Your task to perform on an android device: Go to Android settings Image 0: 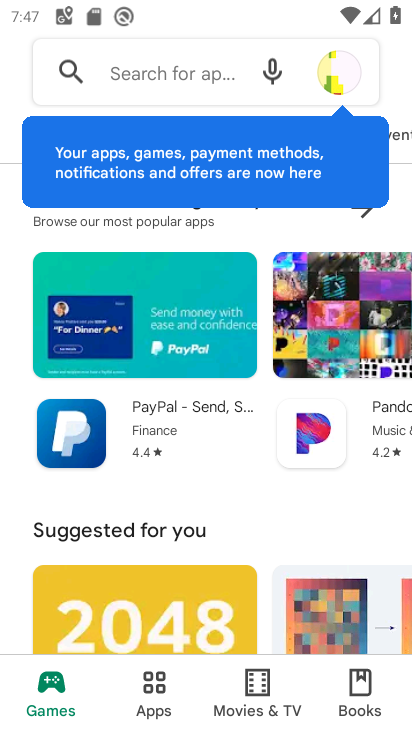
Step 0: press home button
Your task to perform on an android device: Go to Android settings Image 1: 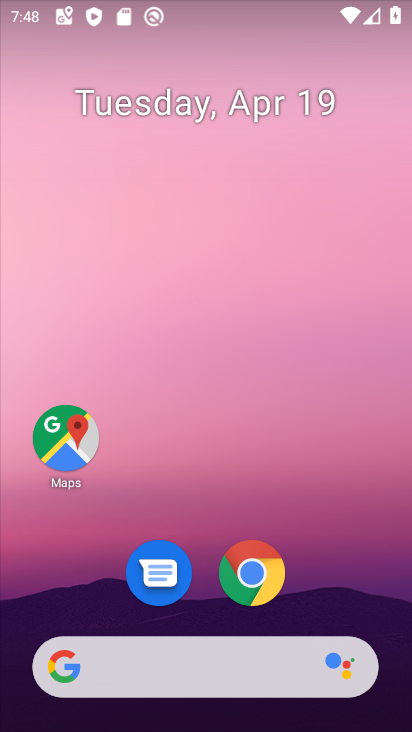
Step 1: drag from (137, 709) to (173, 147)
Your task to perform on an android device: Go to Android settings Image 2: 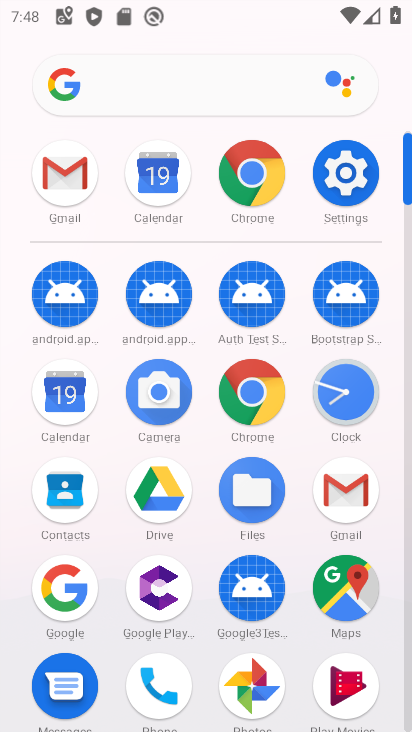
Step 2: click (331, 171)
Your task to perform on an android device: Go to Android settings Image 3: 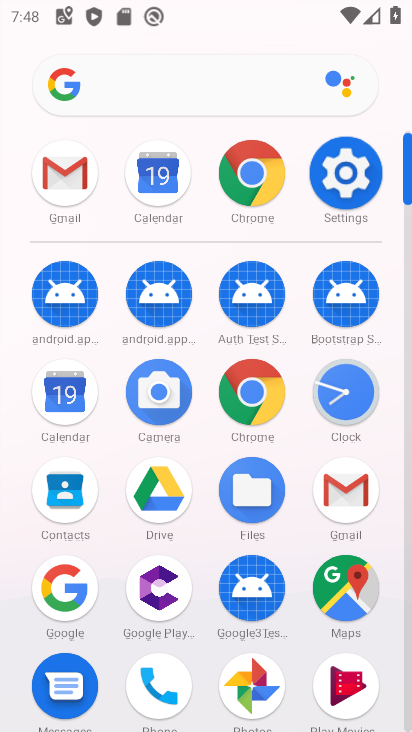
Step 3: click (336, 169)
Your task to perform on an android device: Go to Android settings Image 4: 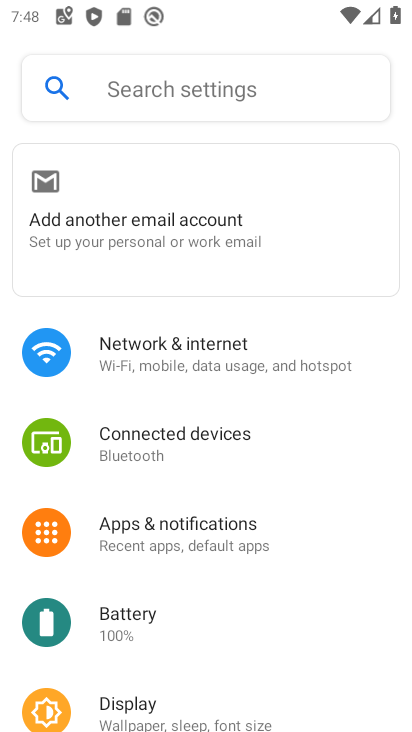
Step 4: click (195, 98)
Your task to perform on an android device: Go to Android settings Image 5: 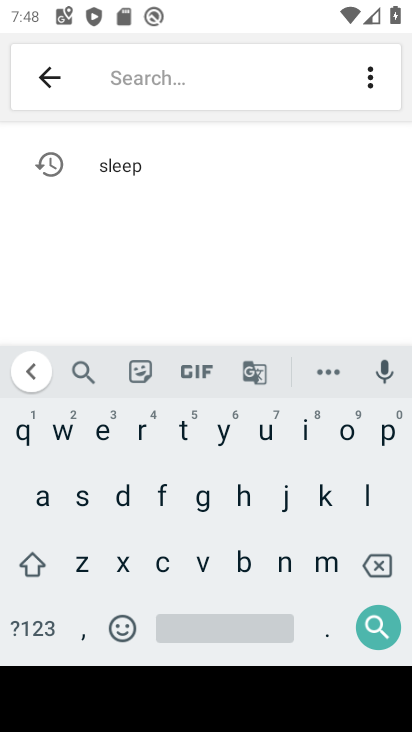
Step 5: click (40, 494)
Your task to perform on an android device: Go to Android settings Image 6: 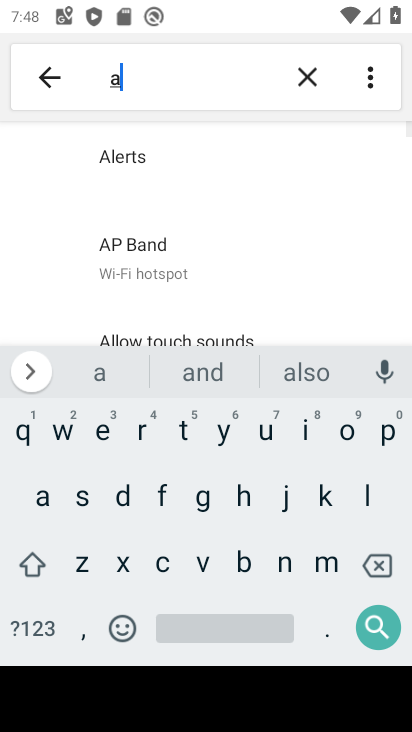
Step 6: click (281, 561)
Your task to perform on an android device: Go to Android settings Image 7: 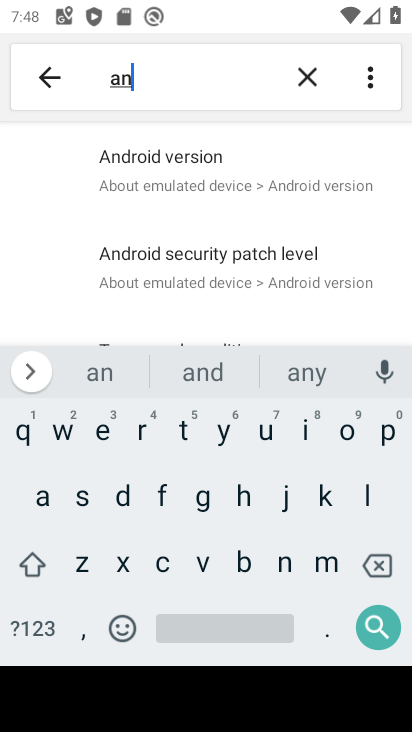
Step 7: click (117, 497)
Your task to perform on an android device: Go to Android settings Image 8: 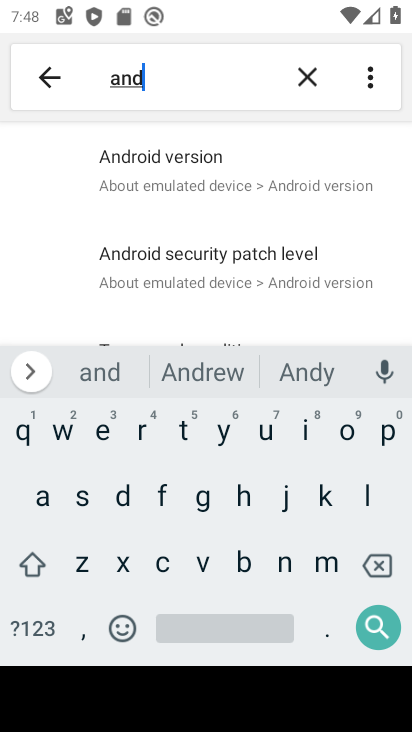
Step 8: click (192, 177)
Your task to perform on an android device: Go to Android settings Image 9: 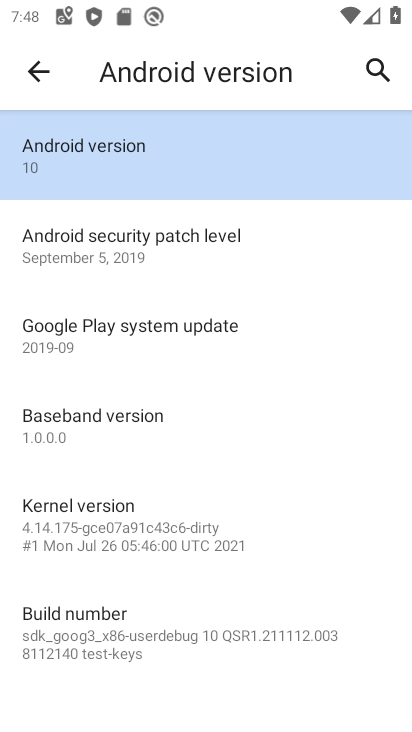
Step 9: task complete